Your task to perform on an android device: Search for pizza restaurants on Maps Image 0: 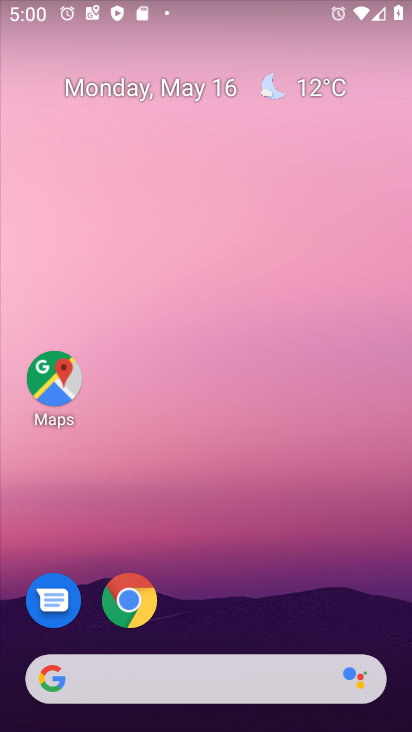
Step 0: click (69, 386)
Your task to perform on an android device: Search for pizza restaurants on Maps Image 1: 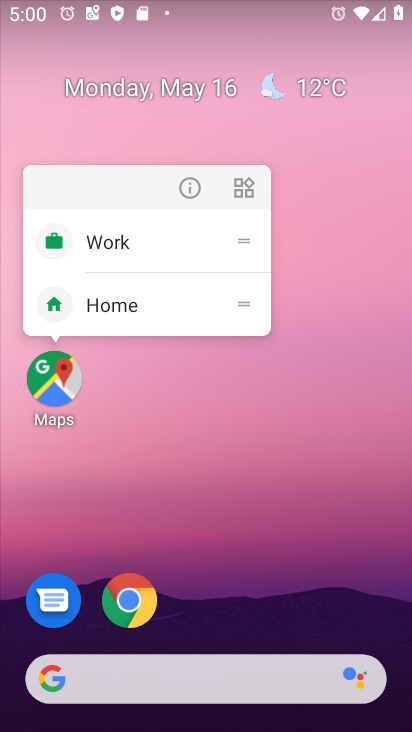
Step 1: click (50, 375)
Your task to perform on an android device: Search for pizza restaurants on Maps Image 2: 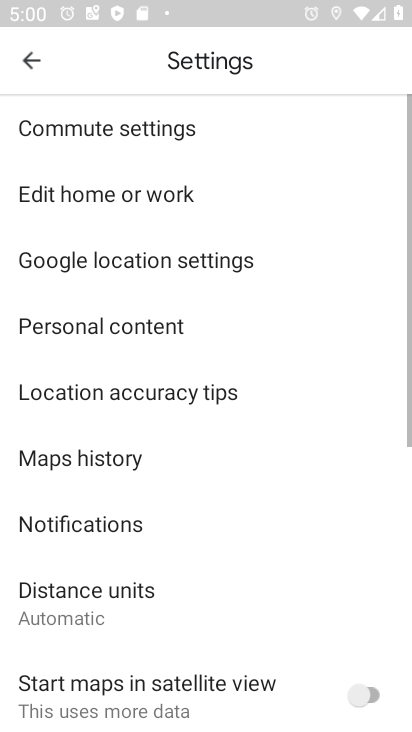
Step 2: click (36, 54)
Your task to perform on an android device: Search for pizza restaurants on Maps Image 3: 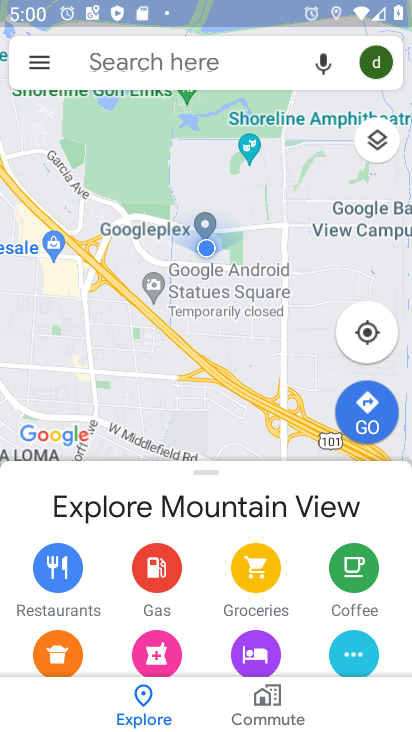
Step 3: click (106, 66)
Your task to perform on an android device: Search for pizza restaurants on Maps Image 4: 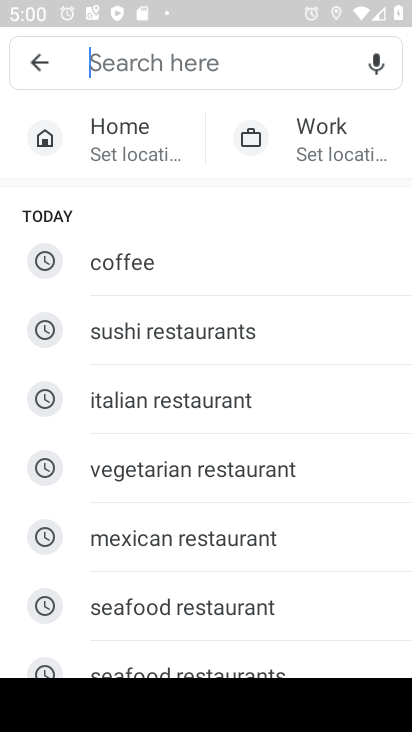
Step 4: drag from (134, 653) to (214, 275)
Your task to perform on an android device: Search for pizza restaurants on Maps Image 5: 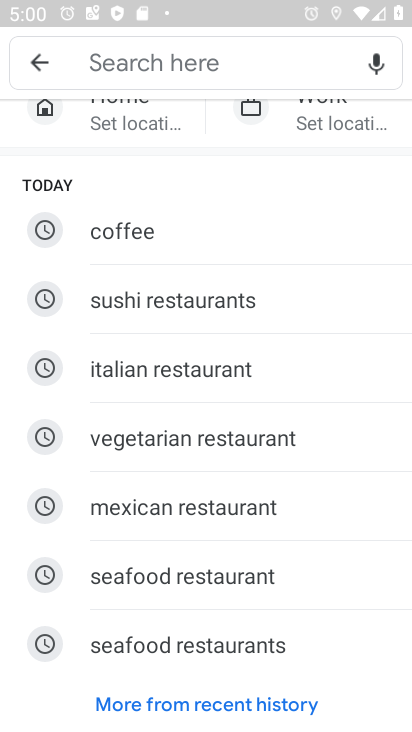
Step 5: drag from (160, 678) to (204, 300)
Your task to perform on an android device: Search for pizza restaurants on Maps Image 6: 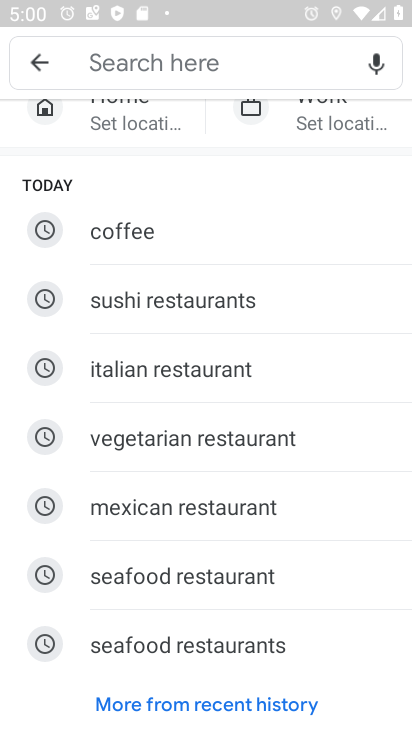
Step 6: click (171, 55)
Your task to perform on an android device: Search for pizza restaurants on Maps Image 7: 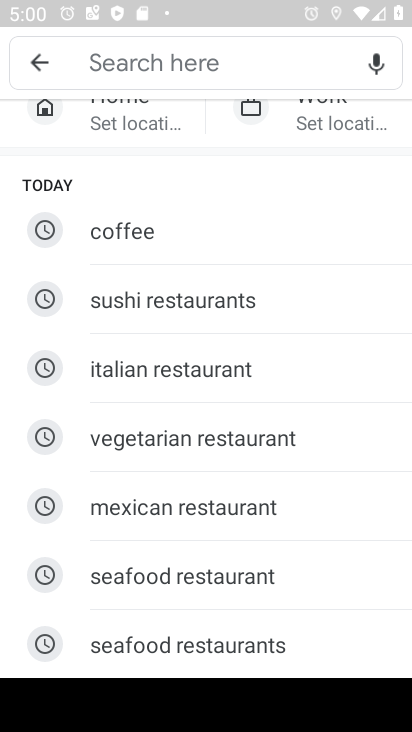
Step 7: type "pizza restaurants"
Your task to perform on an android device: Search for pizza restaurants on Maps Image 8: 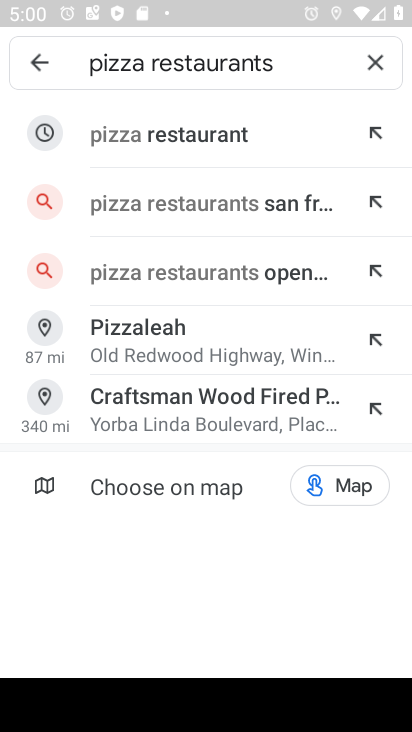
Step 8: click (244, 137)
Your task to perform on an android device: Search for pizza restaurants on Maps Image 9: 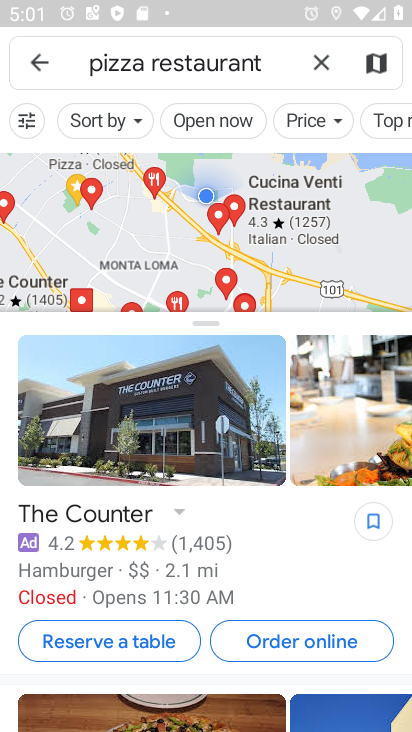
Step 9: task complete